Your task to perform on an android device: Go to privacy settings Image 0: 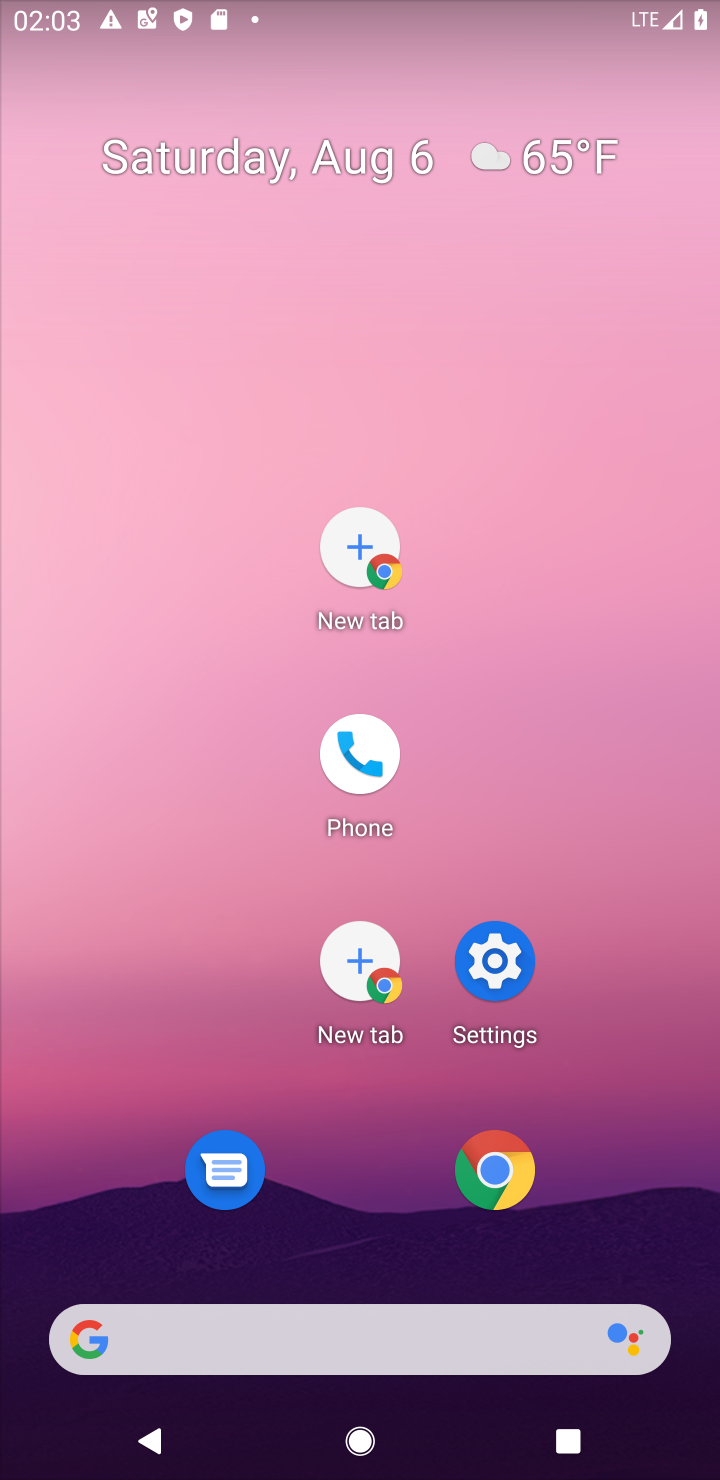
Step 0: click (504, 956)
Your task to perform on an android device: Go to privacy settings Image 1: 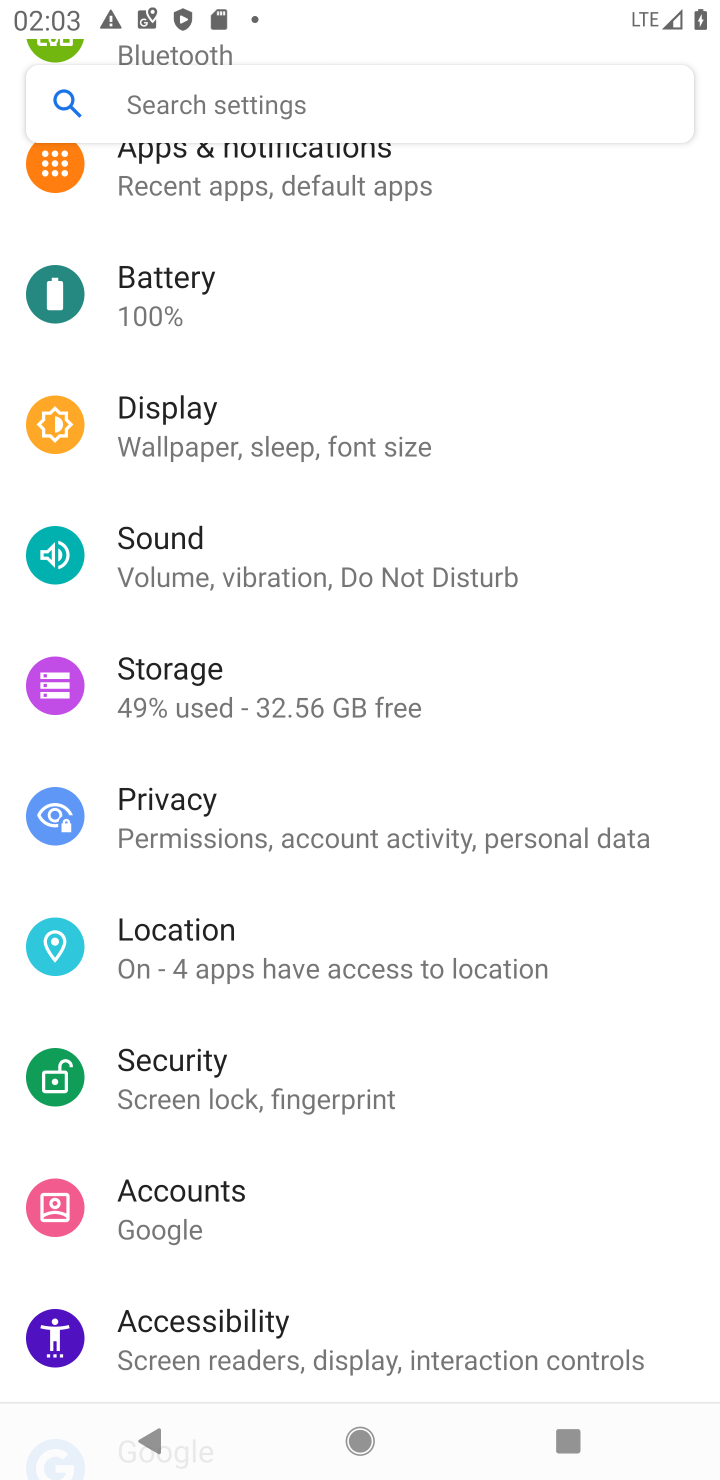
Step 1: click (353, 823)
Your task to perform on an android device: Go to privacy settings Image 2: 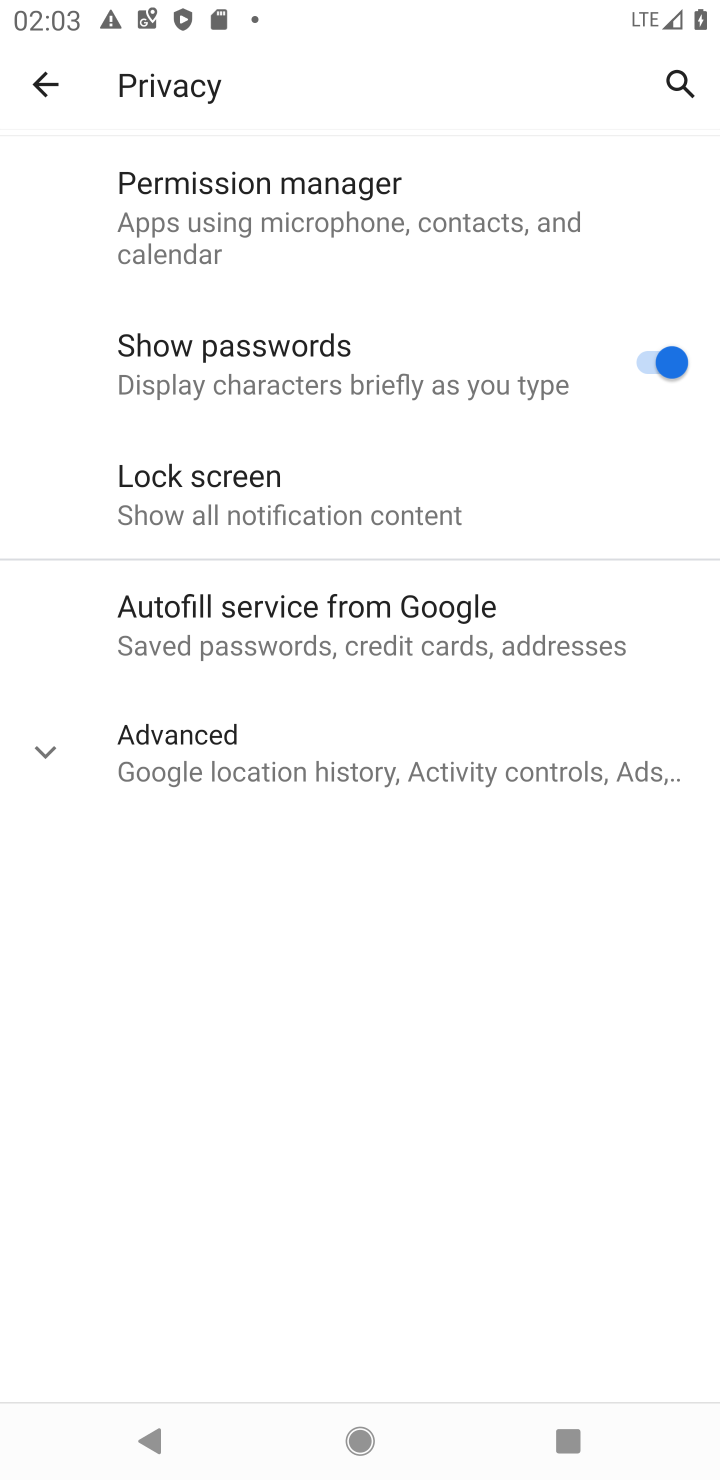
Step 2: task complete